Your task to perform on an android device: Open Chrome and go to settings Image 0: 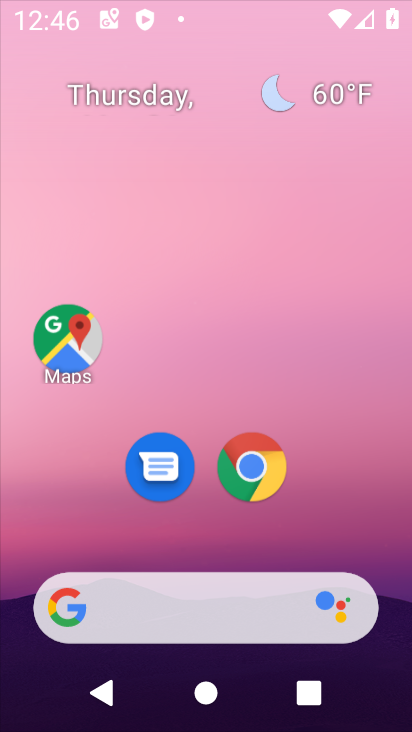
Step 0: click (180, 193)
Your task to perform on an android device: Open Chrome and go to settings Image 1: 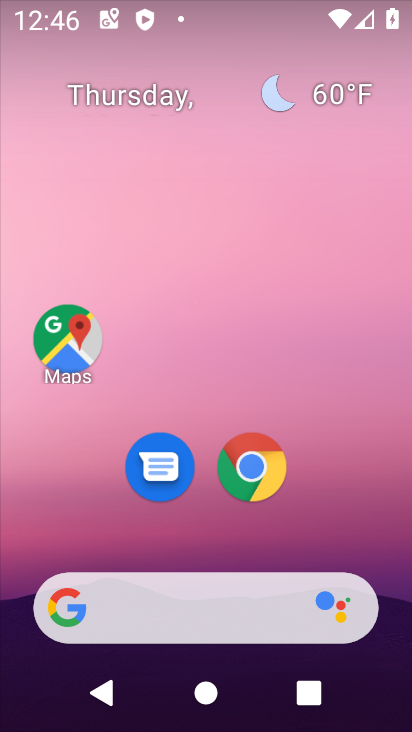
Step 1: click (261, 485)
Your task to perform on an android device: Open Chrome and go to settings Image 2: 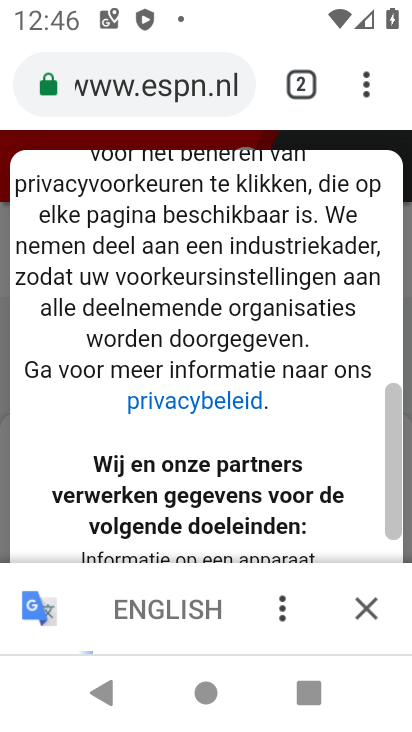
Step 2: click (363, 70)
Your task to perform on an android device: Open Chrome and go to settings Image 3: 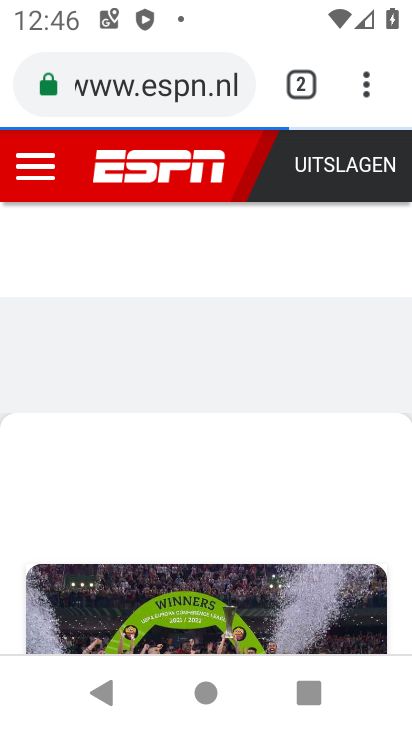
Step 3: click (368, 86)
Your task to perform on an android device: Open Chrome and go to settings Image 4: 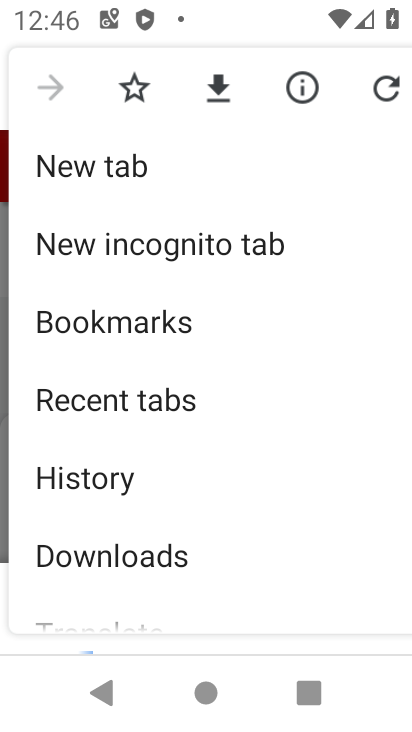
Step 4: drag from (105, 554) to (173, 193)
Your task to perform on an android device: Open Chrome and go to settings Image 5: 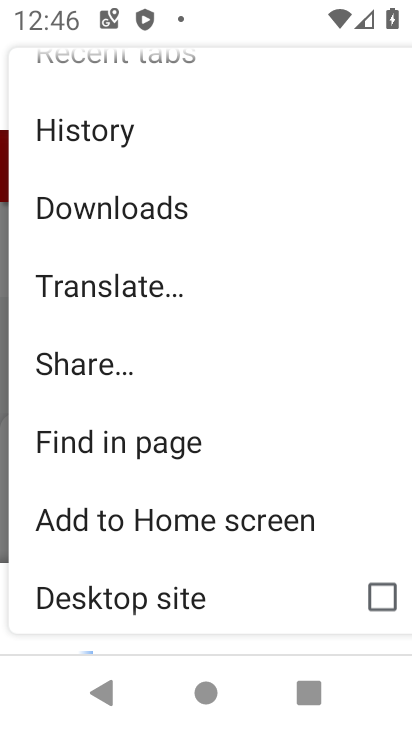
Step 5: drag from (143, 485) to (204, 217)
Your task to perform on an android device: Open Chrome and go to settings Image 6: 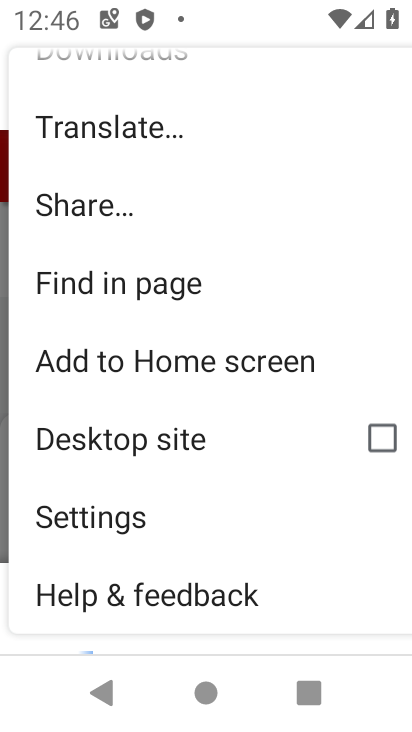
Step 6: click (131, 531)
Your task to perform on an android device: Open Chrome and go to settings Image 7: 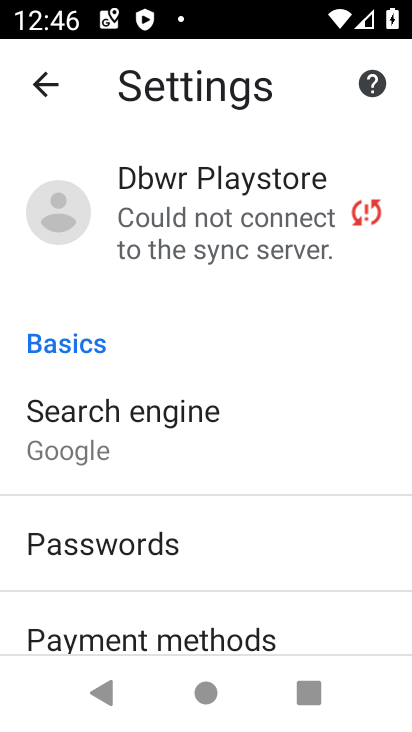
Step 7: task complete